Your task to perform on an android device: Show the shopping cart on bestbuy. Image 0: 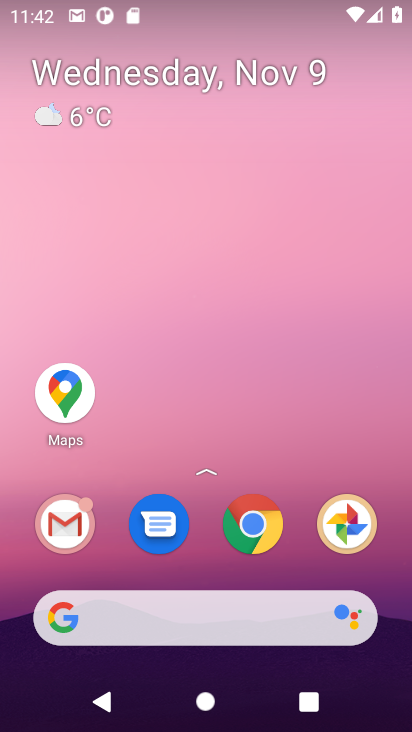
Step 0: click (245, 510)
Your task to perform on an android device: Show the shopping cart on bestbuy. Image 1: 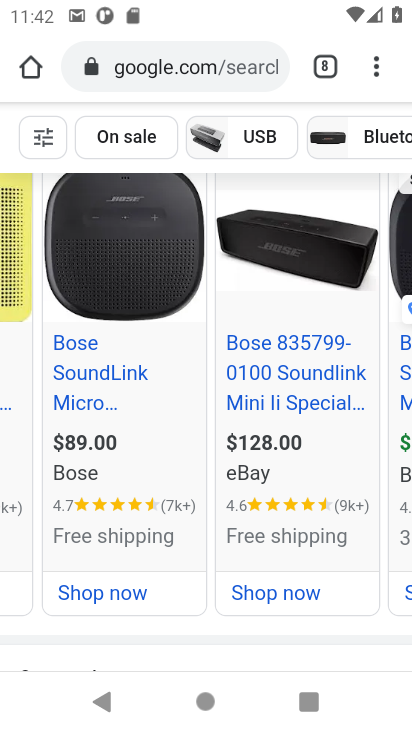
Step 1: click (329, 62)
Your task to perform on an android device: Show the shopping cart on bestbuy. Image 2: 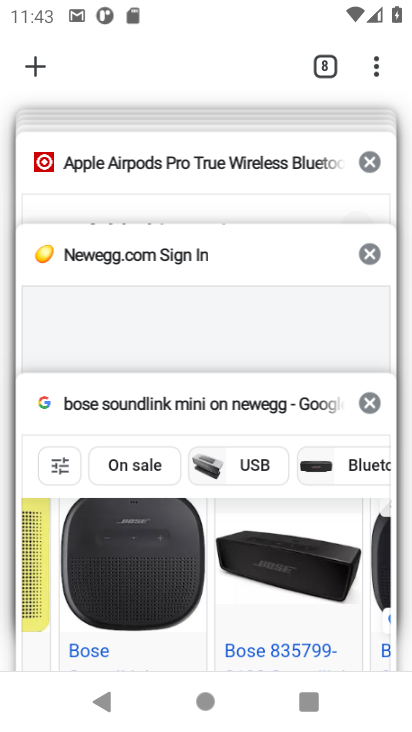
Step 2: click (370, 402)
Your task to perform on an android device: Show the shopping cart on bestbuy. Image 3: 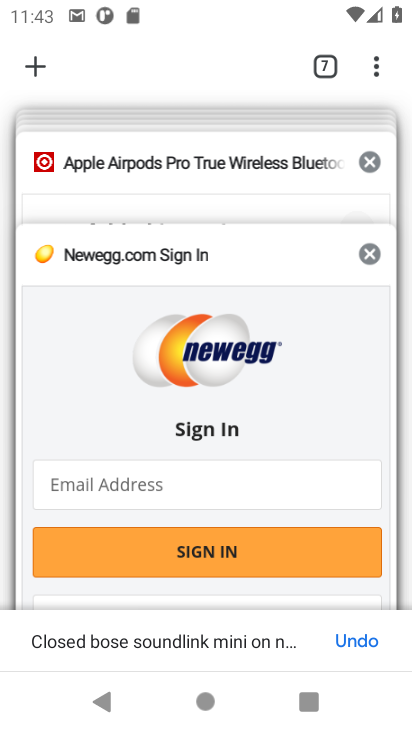
Step 3: drag from (221, 139) to (197, 239)
Your task to perform on an android device: Show the shopping cart on bestbuy. Image 4: 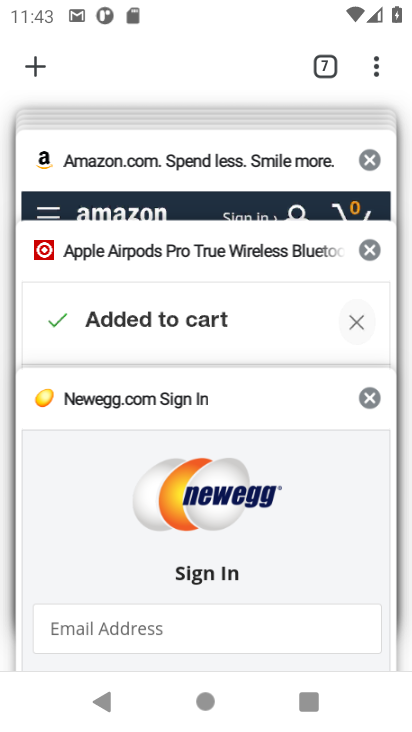
Step 4: drag from (230, 126) to (207, 242)
Your task to perform on an android device: Show the shopping cart on bestbuy. Image 5: 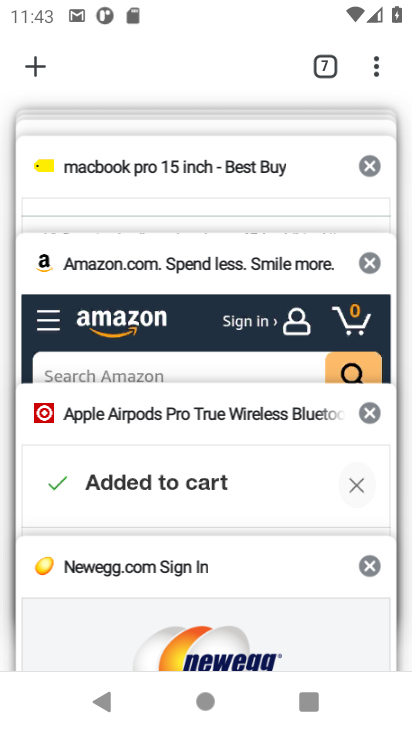
Step 5: click (214, 193)
Your task to perform on an android device: Show the shopping cart on bestbuy. Image 6: 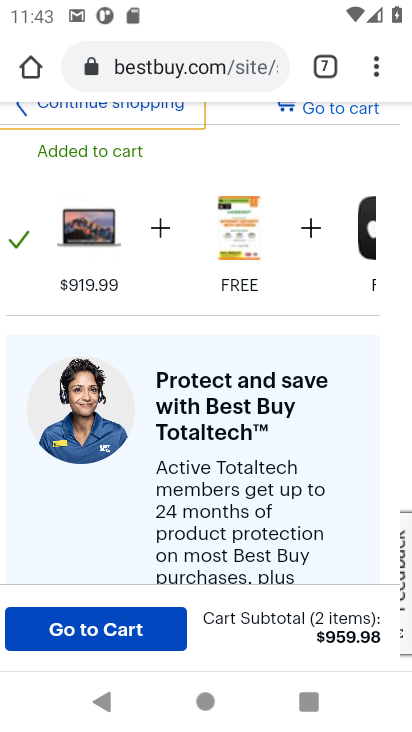
Step 6: click (330, 107)
Your task to perform on an android device: Show the shopping cart on bestbuy. Image 7: 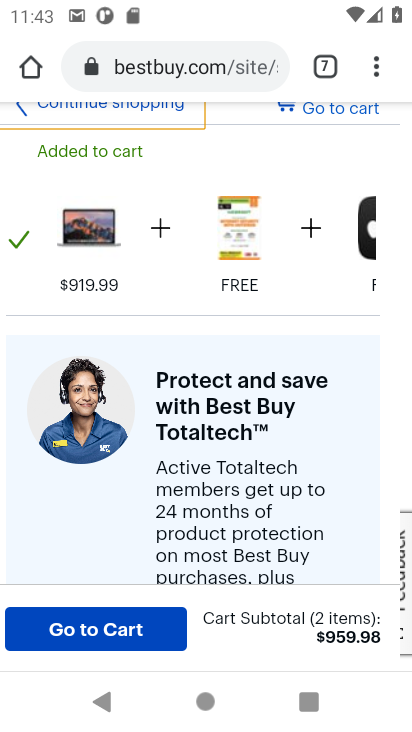
Step 7: task complete